Your task to perform on an android device: check the backup settings in the google photos Image 0: 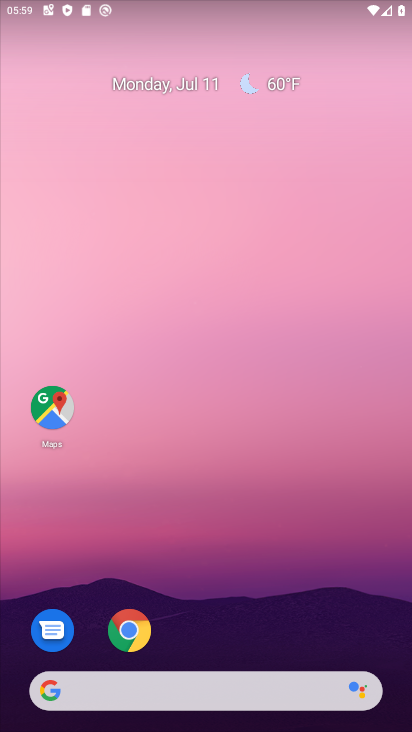
Step 0: drag from (210, 539) to (289, 17)
Your task to perform on an android device: check the backup settings in the google photos Image 1: 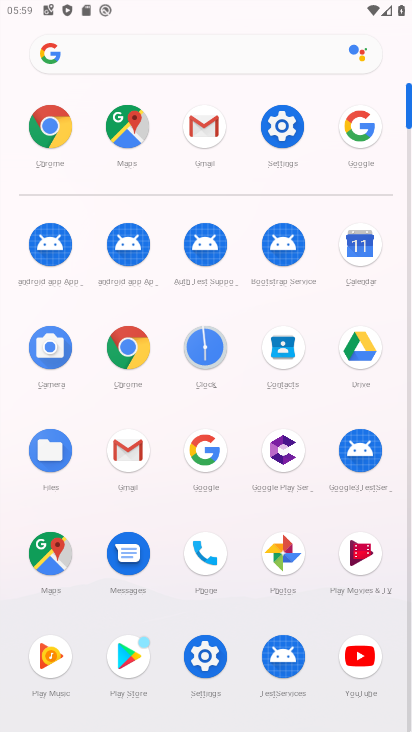
Step 1: click (286, 558)
Your task to perform on an android device: check the backup settings in the google photos Image 2: 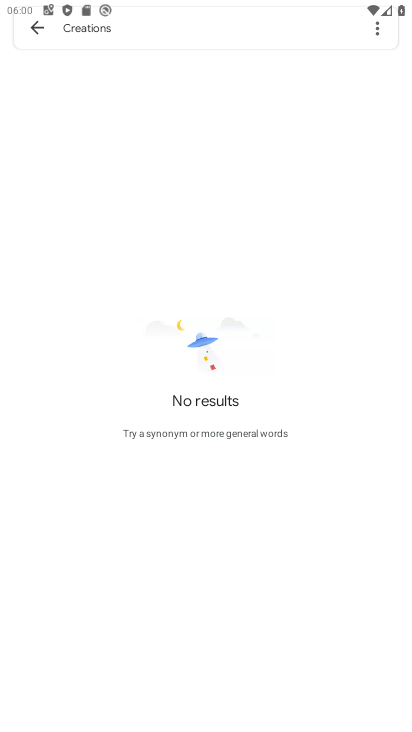
Step 2: click (33, 25)
Your task to perform on an android device: check the backup settings in the google photos Image 3: 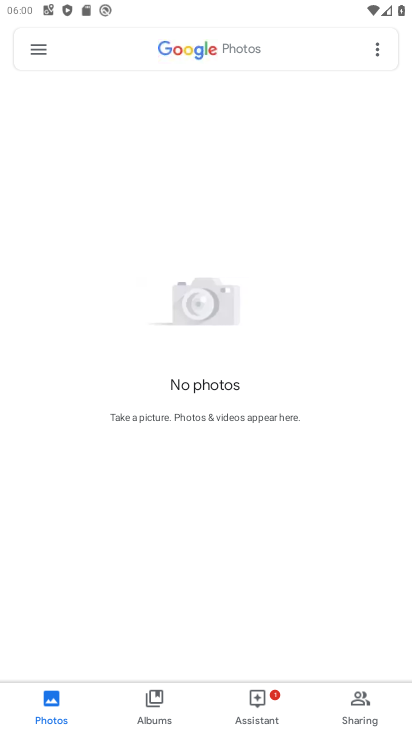
Step 3: click (33, 48)
Your task to perform on an android device: check the backup settings in the google photos Image 4: 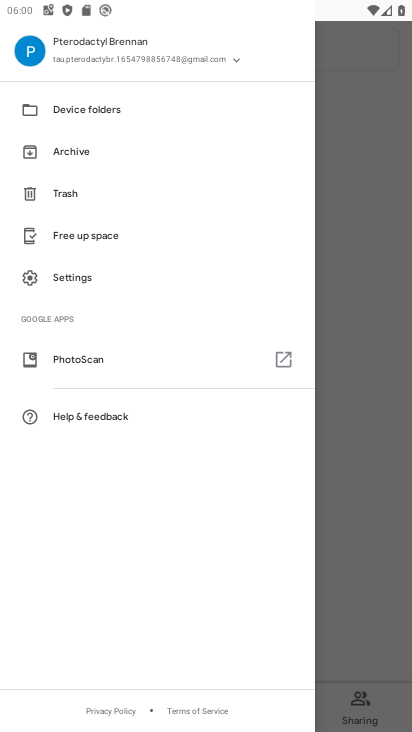
Step 4: click (67, 273)
Your task to perform on an android device: check the backup settings in the google photos Image 5: 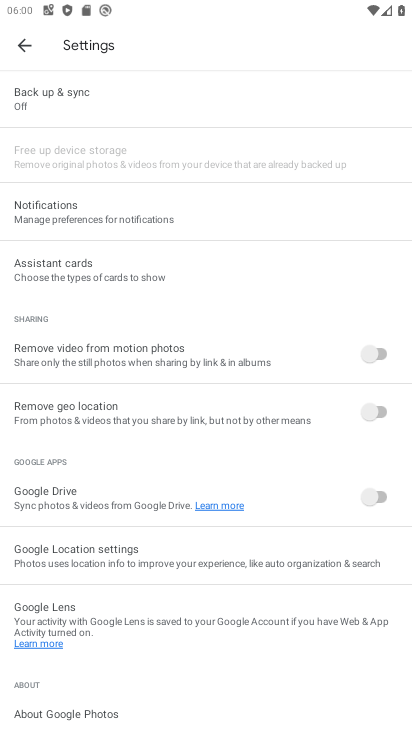
Step 5: click (99, 93)
Your task to perform on an android device: check the backup settings in the google photos Image 6: 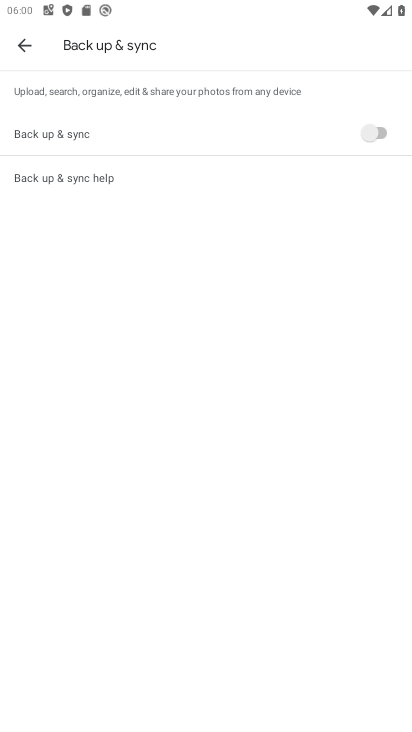
Step 6: click (58, 137)
Your task to perform on an android device: check the backup settings in the google photos Image 7: 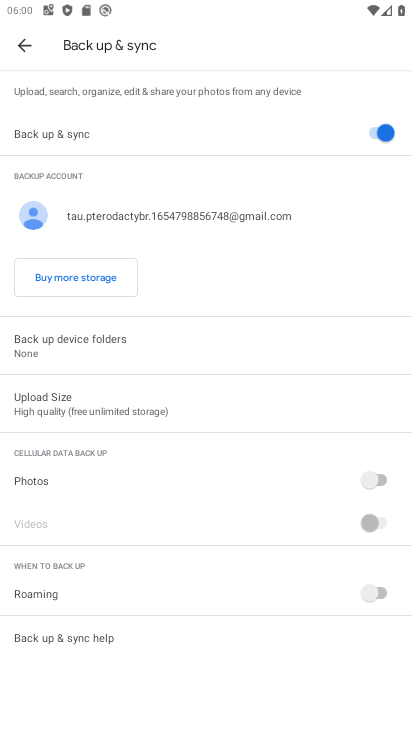
Step 7: task complete